Your task to perform on an android device: see tabs open on other devices in the chrome app Image 0: 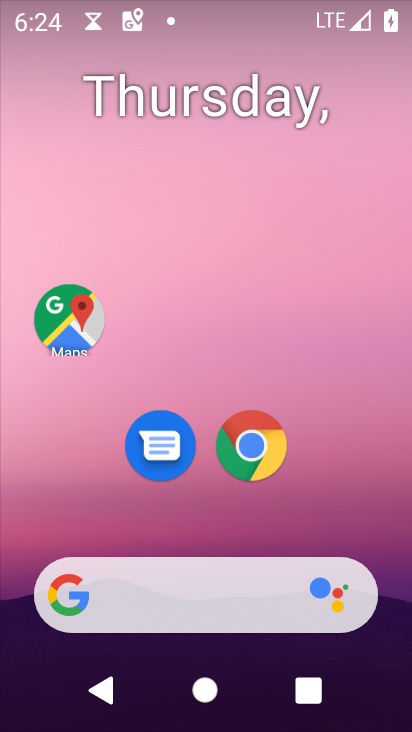
Step 0: drag from (301, 495) to (312, 158)
Your task to perform on an android device: see tabs open on other devices in the chrome app Image 1: 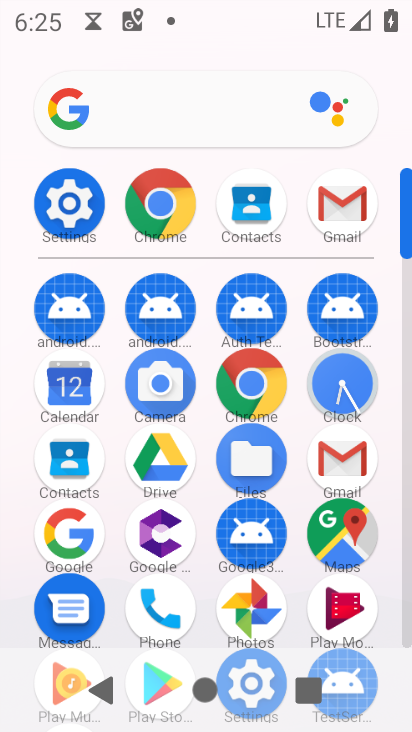
Step 1: click (170, 213)
Your task to perform on an android device: see tabs open on other devices in the chrome app Image 2: 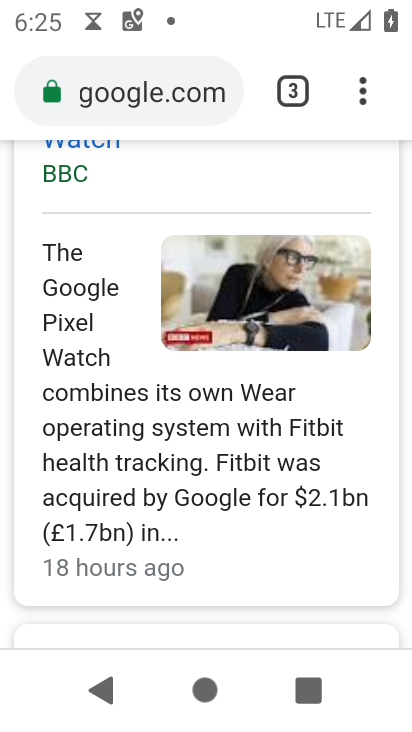
Step 2: drag from (363, 90) to (170, 450)
Your task to perform on an android device: see tabs open on other devices in the chrome app Image 3: 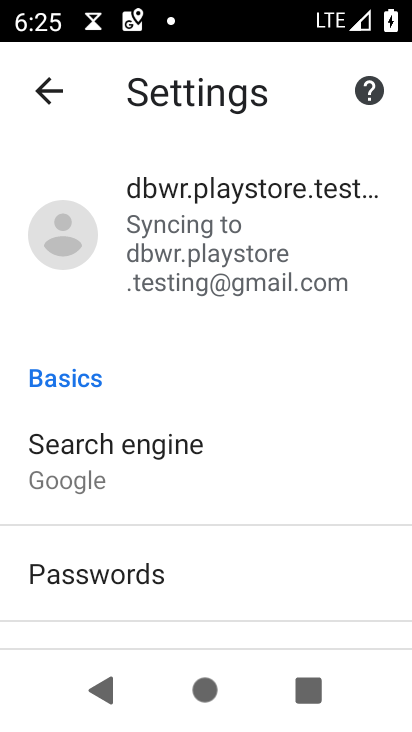
Step 3: click (45, 95)
Your task to perform on an android device: see tabs open on other devices in the chrome app Image 4: 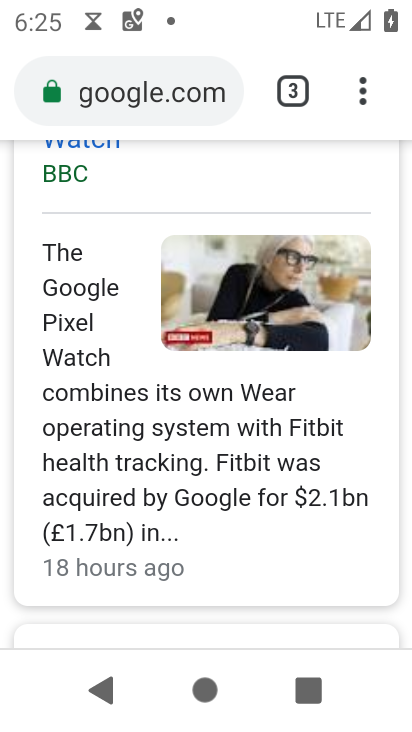
Step 4: drag from (365, 91) to (129, 425)
Your task to perform on an android device: see tabs open on other devices in the chrome app Image 5: 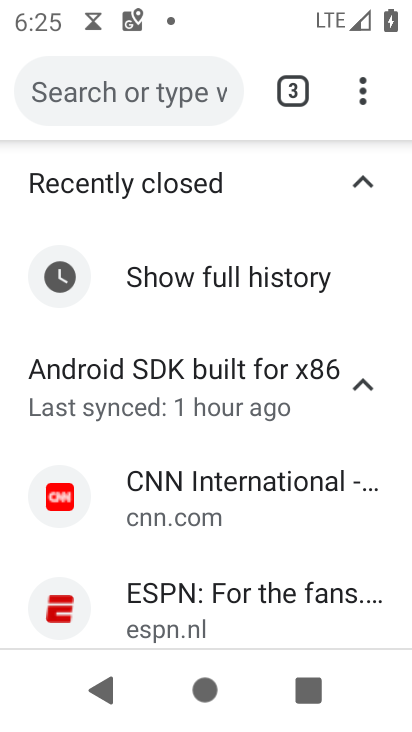
Step 5: click (272, 377)
Your task to perform on an android device: see tabs open on other devices in the chrome app Image 6: 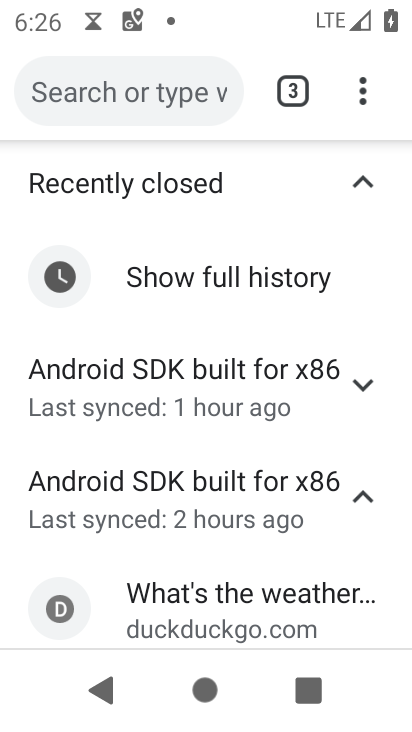
Step 6: task complete